Your task to perform on an android device: Go to accessibility settings Image 0: 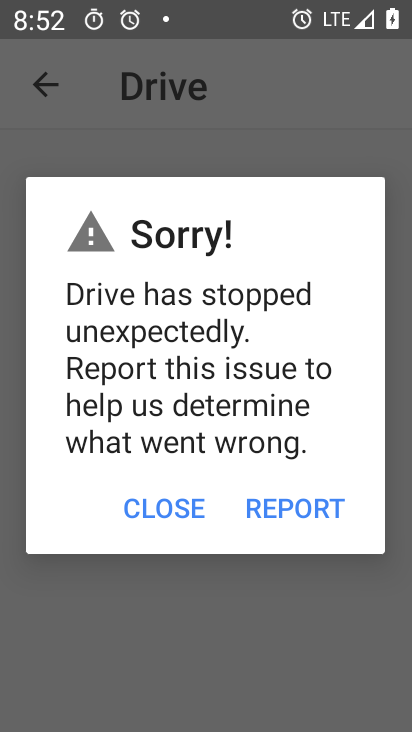
Step 0: press home button
Your task to perform on an android device: Go to accessibility settings Image 1: 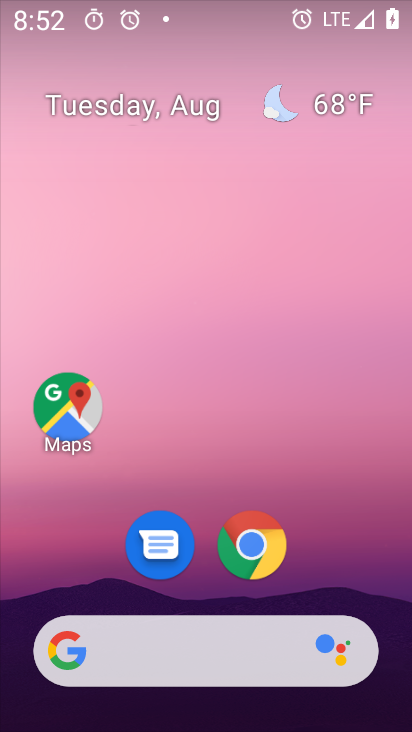
Step 1: drag from (172, 585) to (230, 115)
Your task to perform on an android device: Go to accessibility settings Image 2: 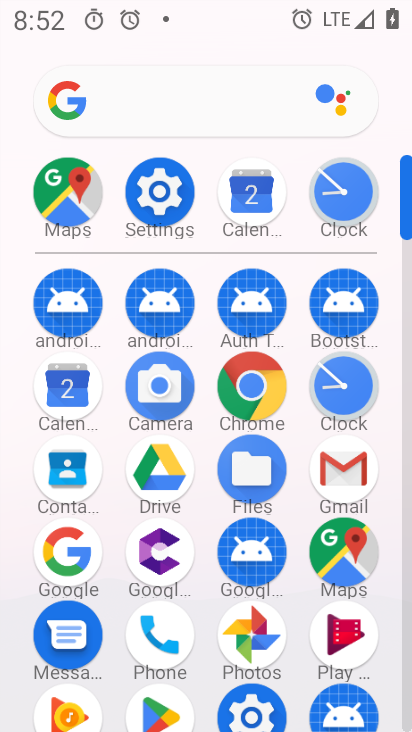
Step 2: click (162, 193)
Your task to perform on an android device: Go to accessibility settings Image 3: 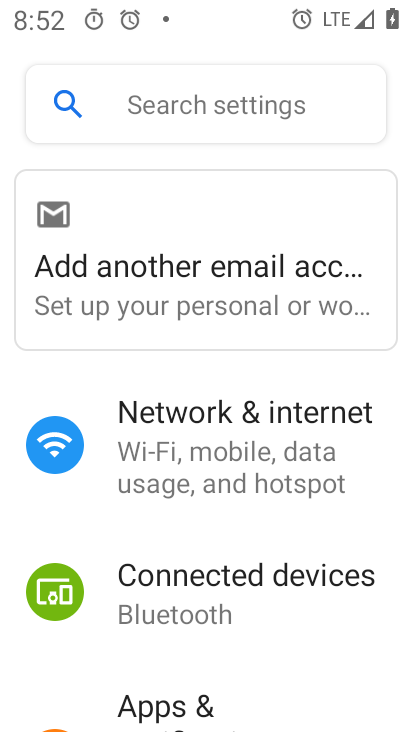
Step 3: drag from (203, 472) to (237, 127)
Your task to perform on an android device: Go to accessibility settings Image 4: 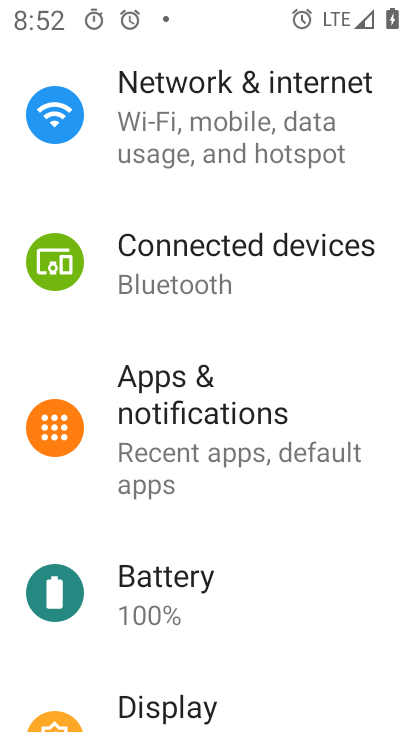
Step 4: drag from (232, 459) to (258, 179)
Your task to perform on an android device: Go to accessibility settings Image 5: 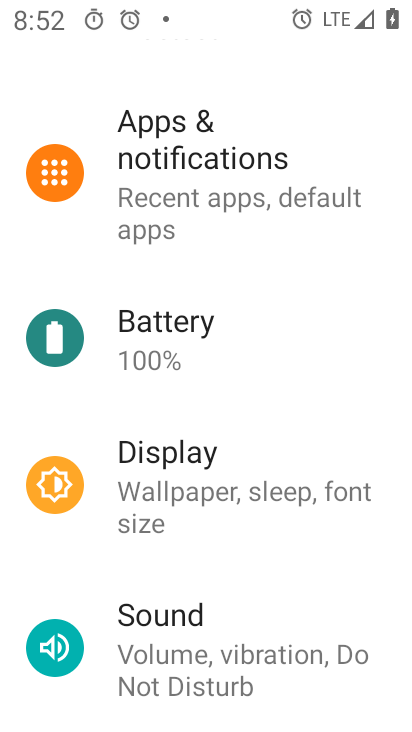
Step 5: drag from (229, 493) to (256, 259)
Your task to perform on an android device: Go to accessibility settings Image 6: 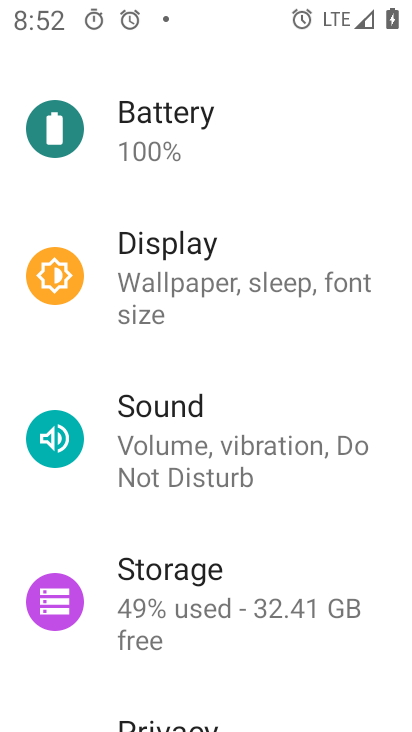
Step 6: drag from (228, 506) to (255, 152)
Your task to perform on an android device: Go to accessibility settings Image 7: 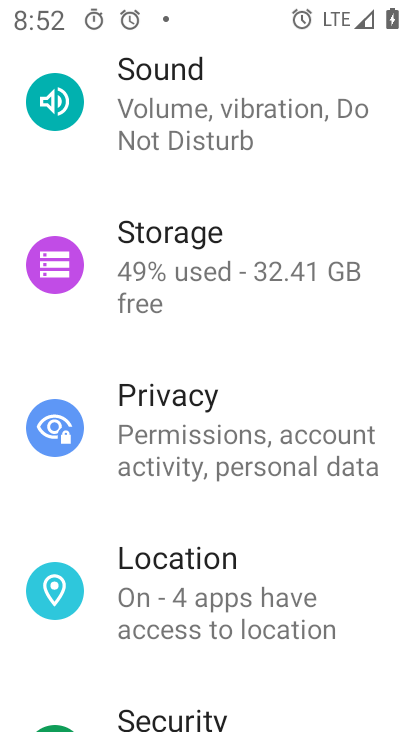
Step 7: drag from (260, 529) to (284, 214)
Your task to perform on an android device: Go to accessibility settings Image 8: 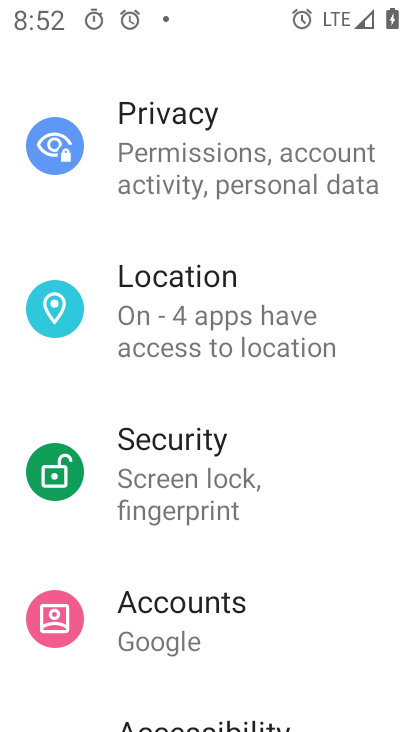
Step 8: drag from (226, 564) to (244, 285)
Your task to perform on an android device: Go to accessibility settings Image 9: 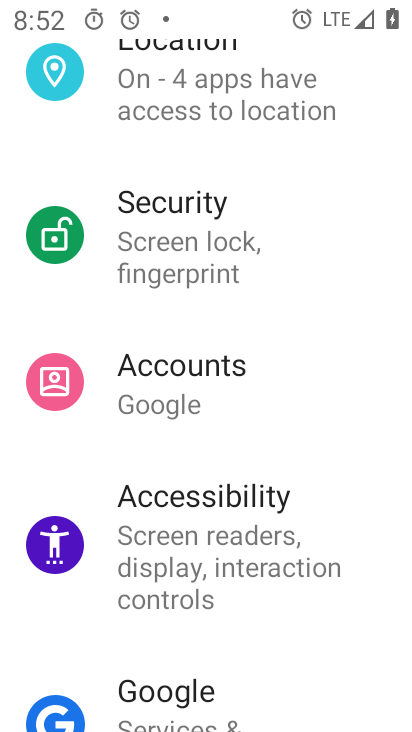
Step 9: click (226, 545)
Your task to perform on an android device: Go to accessibility settings Image 10: 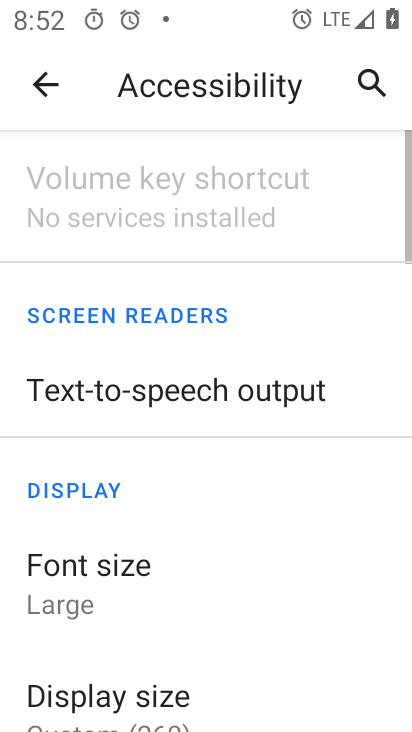
Step 10: task complete